Your task to perform on an android device: Show me productivity apps on the Play Store Image 0: 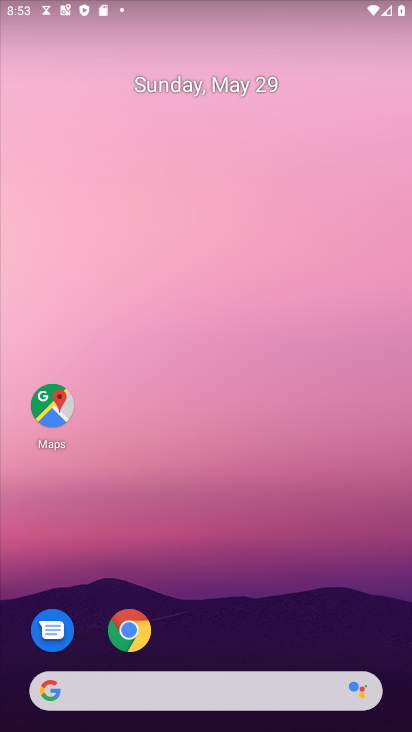
Step 0: drag from (273, 625) to (269, 313)
Your task to perform on an android device: Show me productivity apps on the Play Store Image 1: 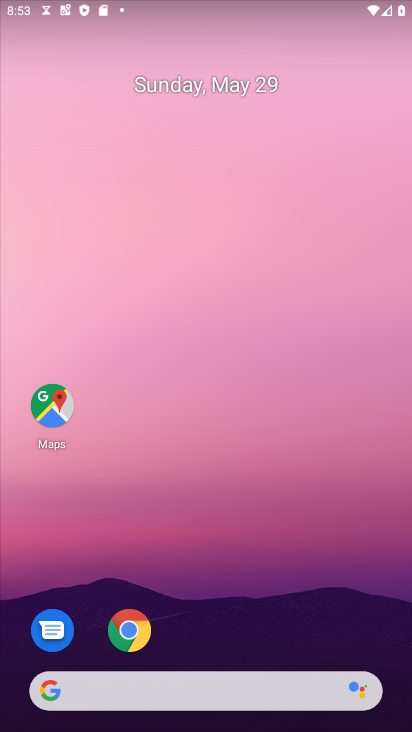
Step 1: drag from (265, 593) to (222, 17)
Your task to perform on an android device: Show me productivity apps on the Play Store Image 2: 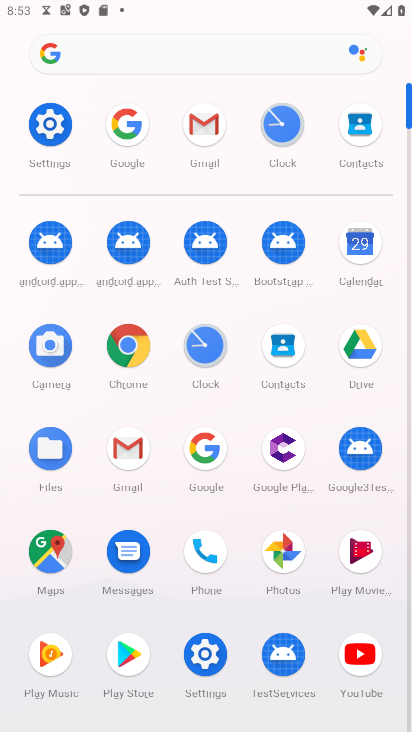
Step 2: click (126, 657)
Your task to perform on an android device: Show me productivity apps on the Play Store Image 3: 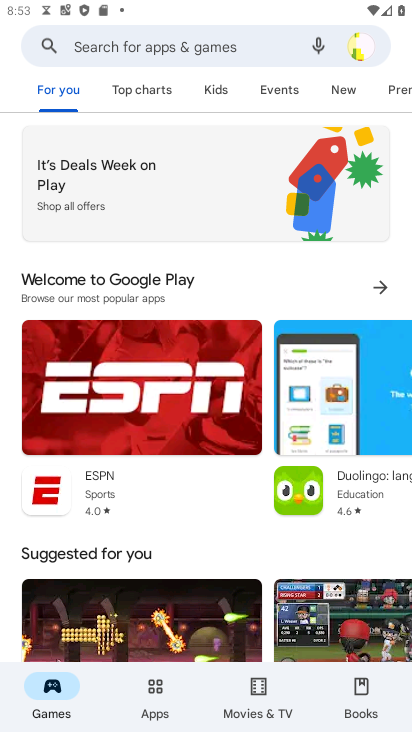
Step 3: click (239, 40)
Your task to perform on an android device: Show me productivity apps on the Play Store Image 4: 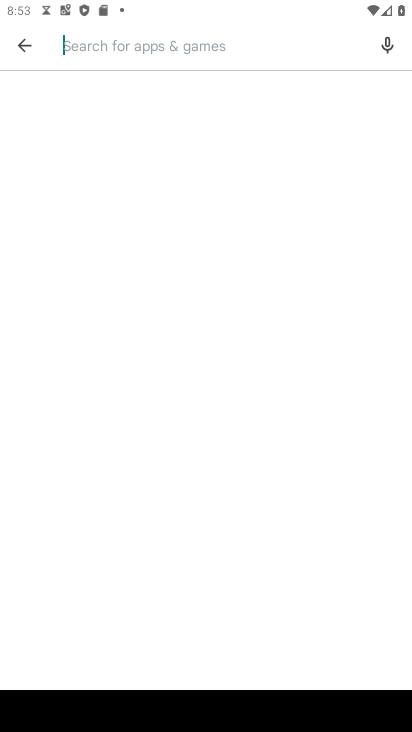
Step 4: type "productivity apps"
Your task to perform on an android device: Show me productivity apps on the Play Store Image 5: 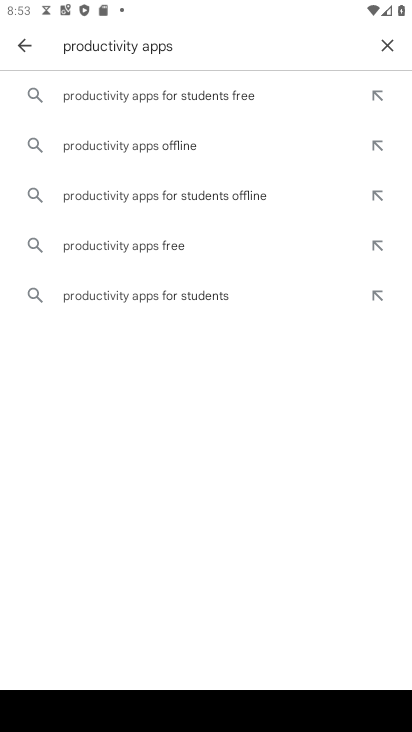
Step 5: click (151, 243)
Your task to perform on an android device: Show me productivity apps on the Play Store Image 6: 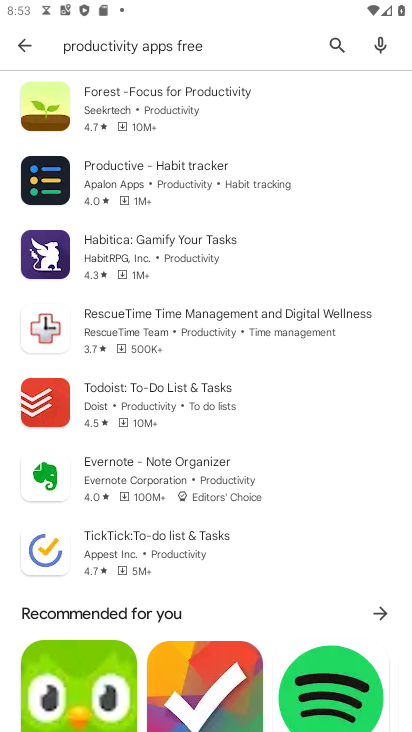
Step 6: task complete